Your task to perform on an android device: set an alarm Image 0: 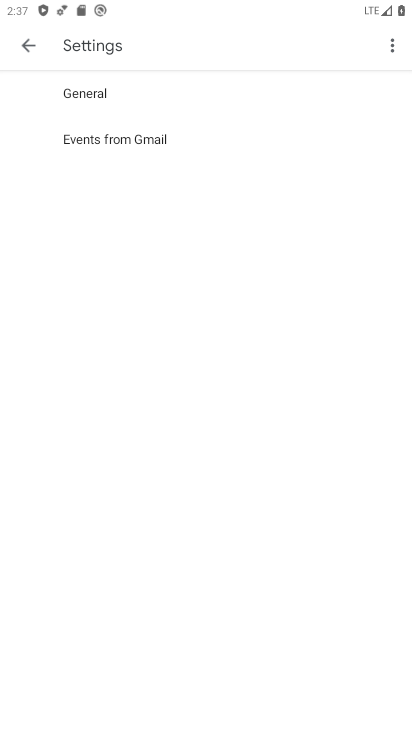
Step 0: press home button
Your task to perform on an android device: set an alarm Image 1: 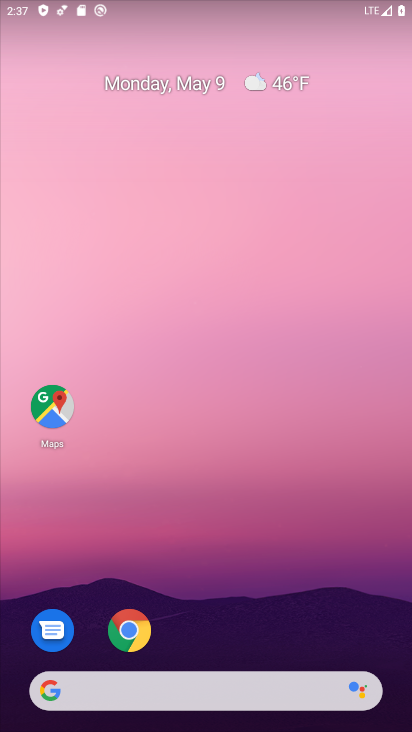
Step 1: drag from (356, 715) to (409, 410)
Your task to perform on an android device: set an alarm Image 2: 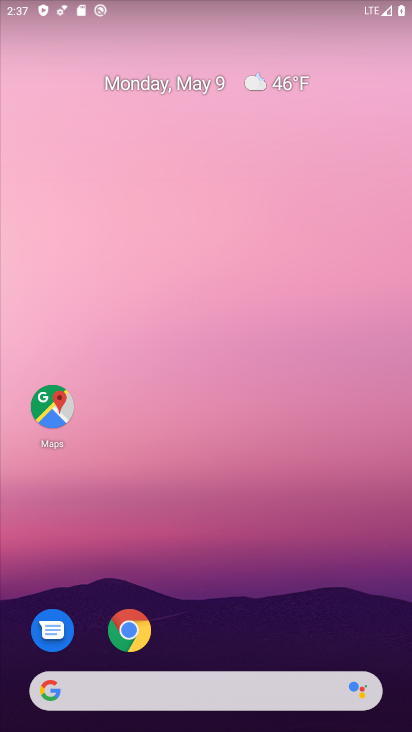
Step 2: drag from (241, 657) to (371, 0)
Your task to perform on an android device: set an alarm Image 3: 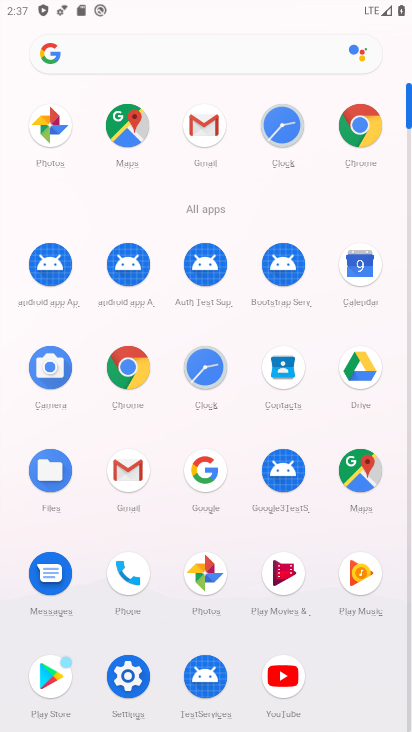
Step 3: click (282, 164)
Your task to perform on an android device: set an alarm Image 4: 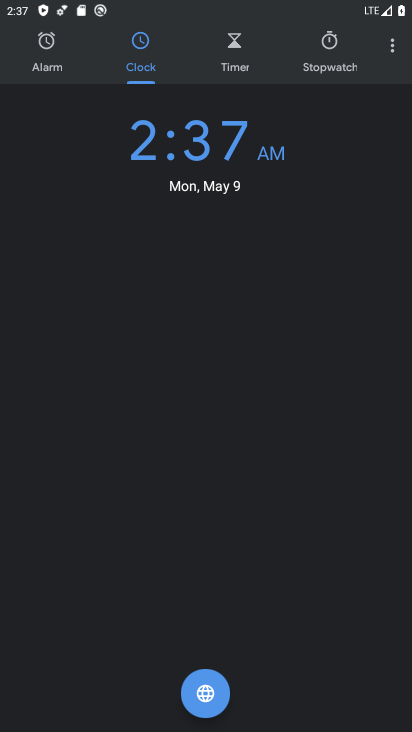
Step 4: click (64, 48)
Your task to perform on an android device: set an alarm Image 5: 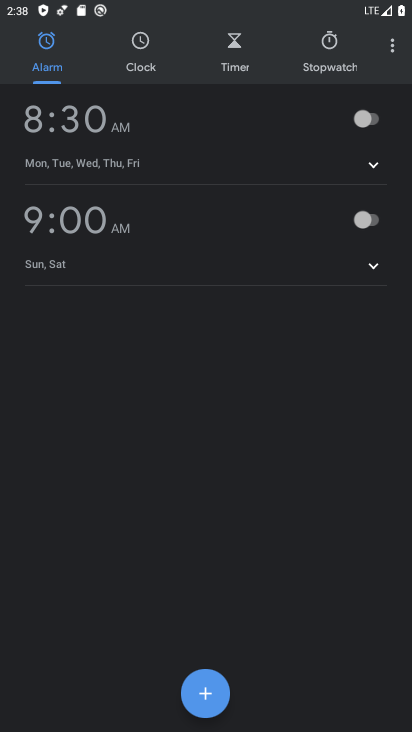
Step 5: click (224, 682)
Your task to perform on an android device: set an alarm Image 6: 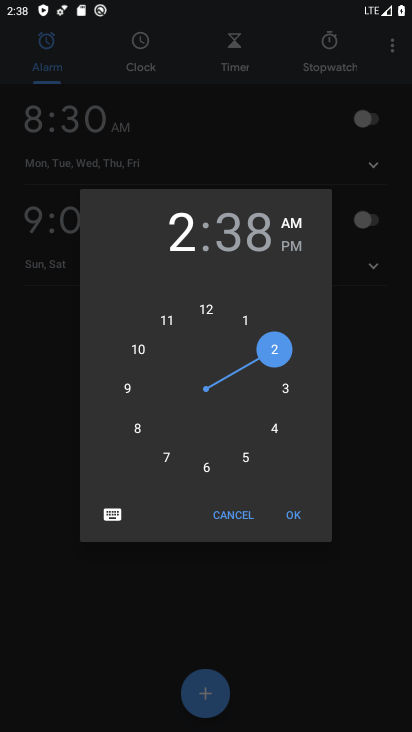
Step 6: click (300, 529)
Your task to perform on an android device: set an alarm Image 7: 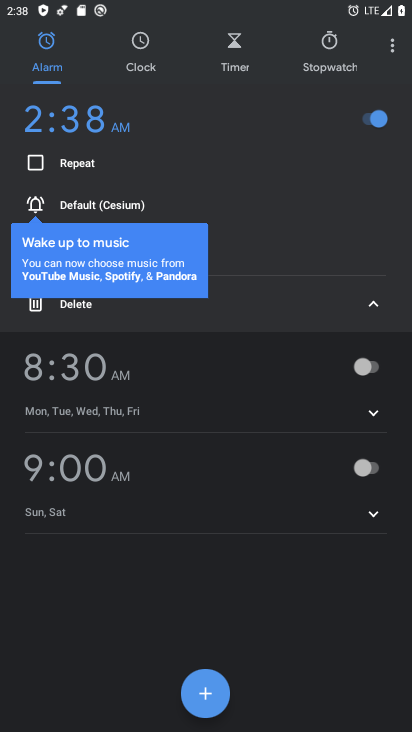
Step 7: task complete